Your task to perform on an android device: open chrome privacy settings Image 0: 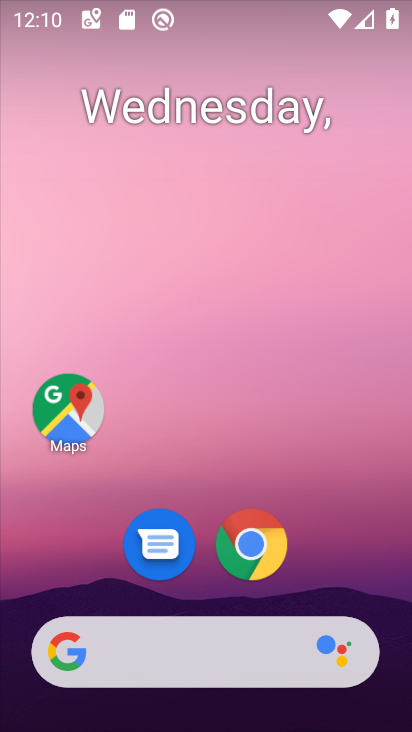
Step 0: drag from (187, 488) to (132, 98)
Your task to perform on an android device: open chrome privacy settings Image 1: 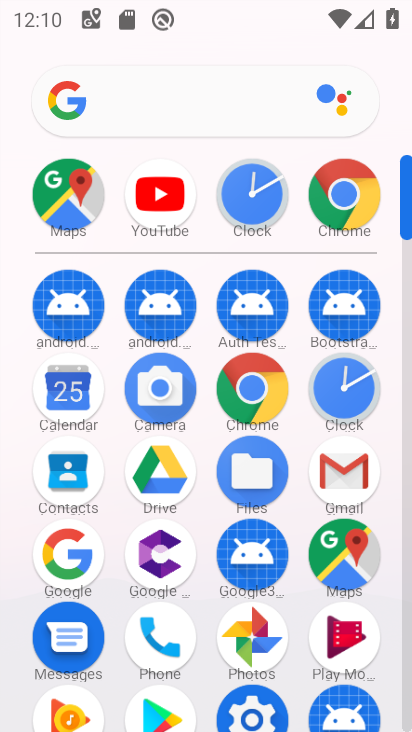
Step 1: drag from (208, 173) to (191, 66)
Your task to perform on an android device: open chrome privacy settings Image 2: 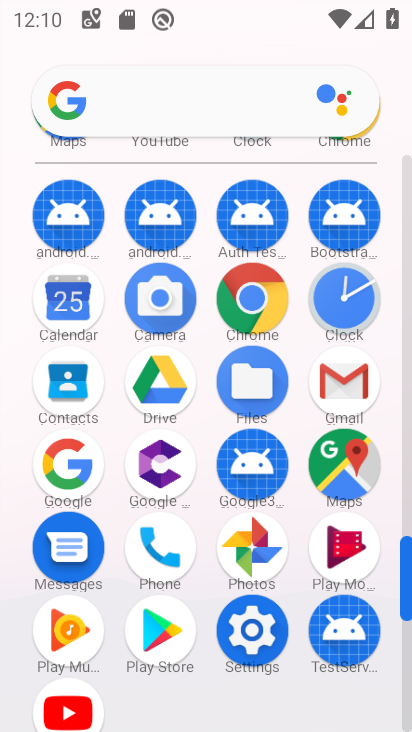
Step 2: click (266, 638)
Your task to perform on an android device: open chrome privacy settings Image 3: 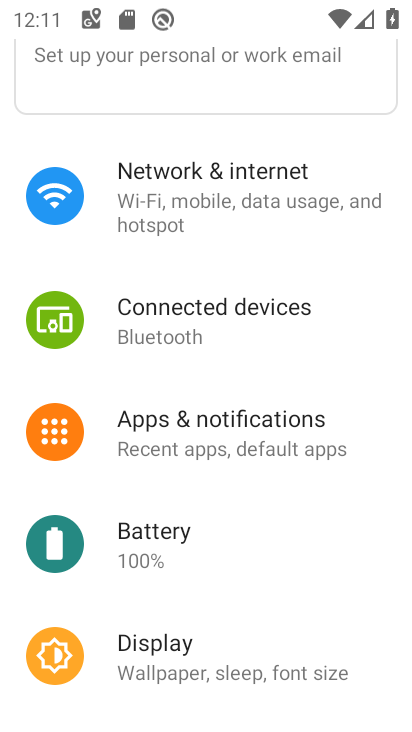
Step 3: drag from (223, 599) to (185, 304)
Your task to perform on an android device: open chrome privacy settings Image 4: 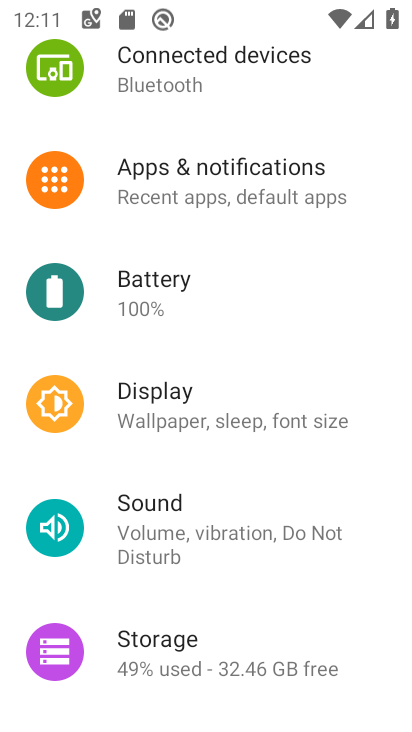
Step 4: drag from (182, 631) to (177, 298)
Your task to perform on an android device: open chrome privacy settings Image 5: 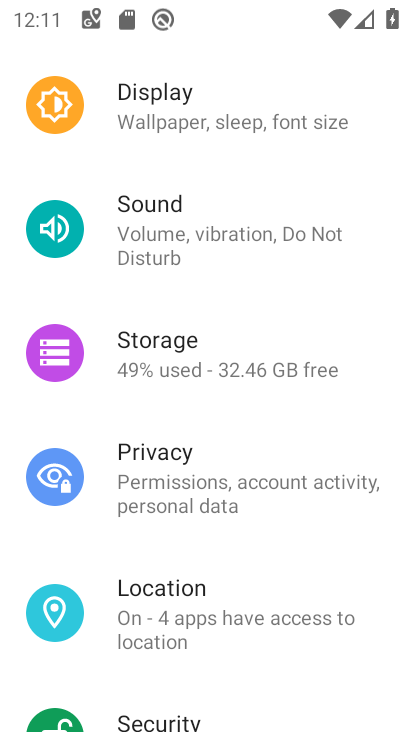
Step 5: click (193, 458)
Your task to perform on an android device: open chrome privacy settings Image 6: 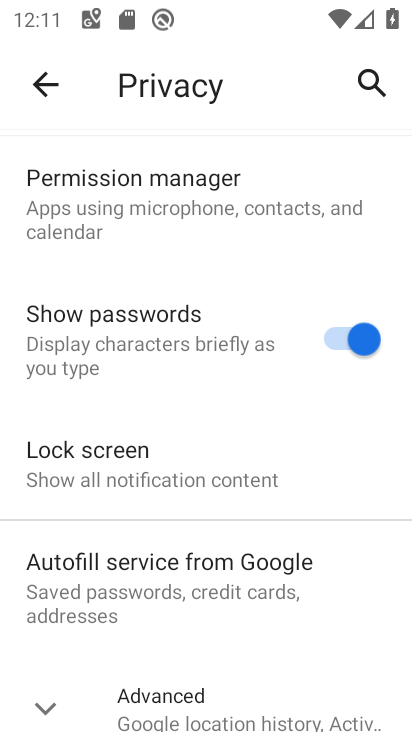
Step 6: task complete